Your task to perform on an android device: clear history in the chrome app Image 0: 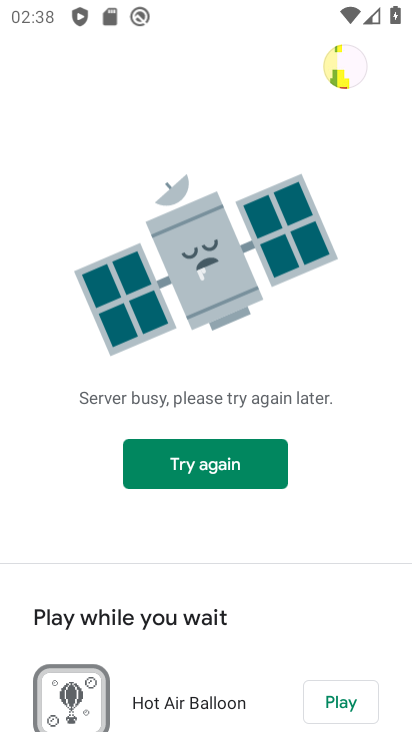
Step 0: press home button
Your task to perform on an android device: clear history in the chrome app Image 1: 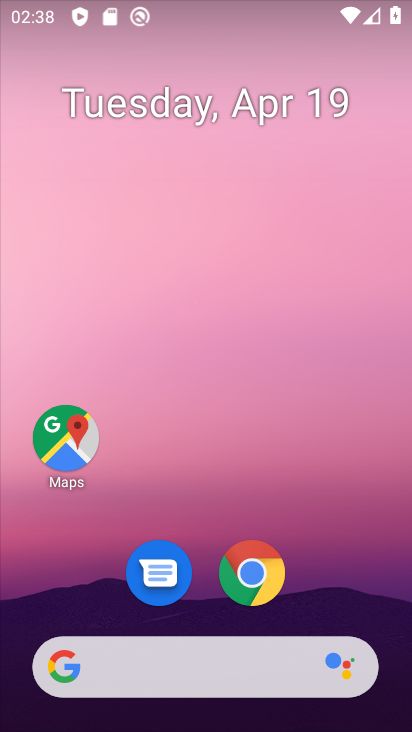
Step 1: drag from (320, 584) to (337, 69)
Your task to perform on an android device: clear history in the chrome app Image 2: 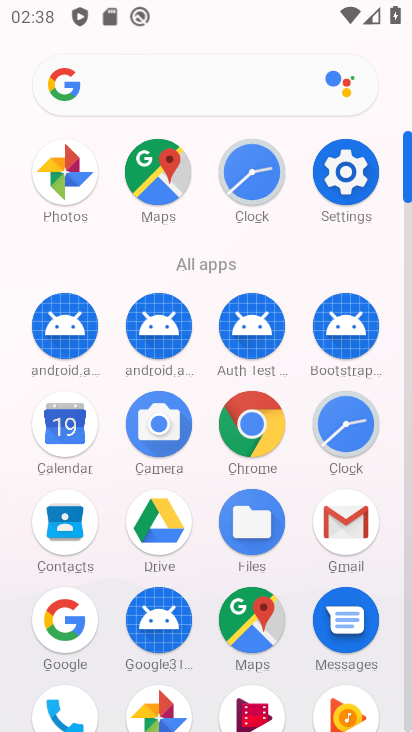
Step 2: click (257, 417)
Your task to perform on an android device: clear history in the chrome app Image 3: 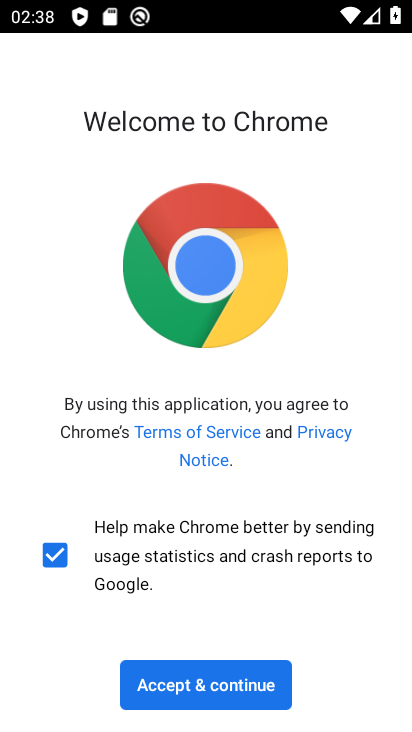
Step 3: click (224, 684)
Your task to perform on an android device: clear history in the chrome app Image 4: 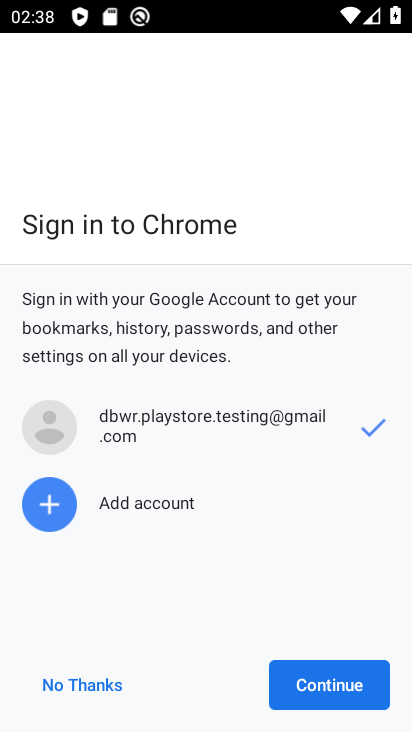
Step 4: click (347, 689)
Your task to perform on an android device: clear history in the chrome app Image 5: 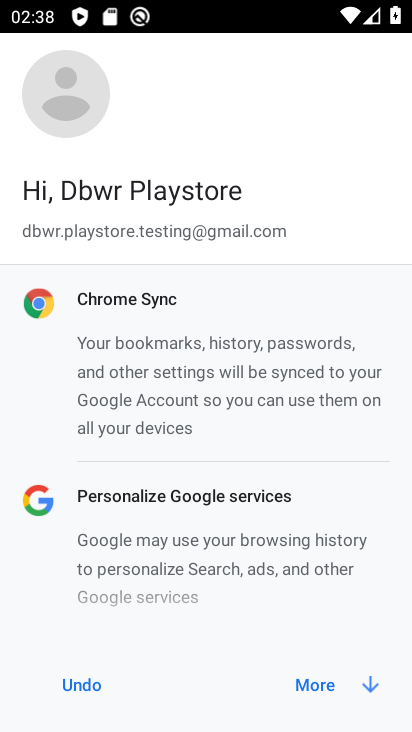
Step 5: click (348, 685)
Your task to perform on an android device: clear history in the chrome app Image 6: 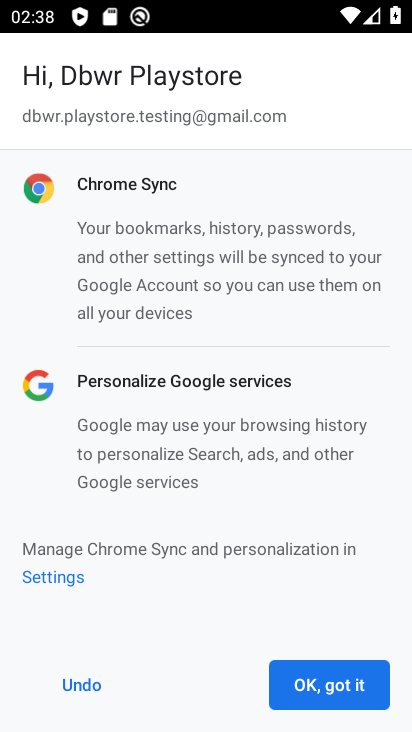
Step 6: click (348, 685)
Your task to perform on an android device: clear history in the chrome app Image 7: 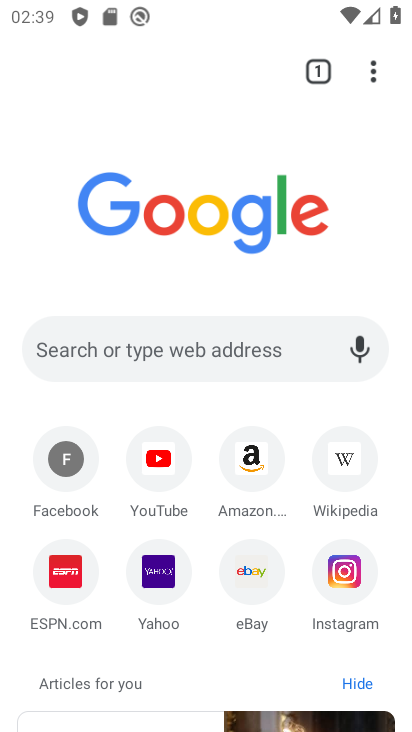
Step 7: task complete